Your task to perform on an android device: open a new tab in the chrome app Image 0: 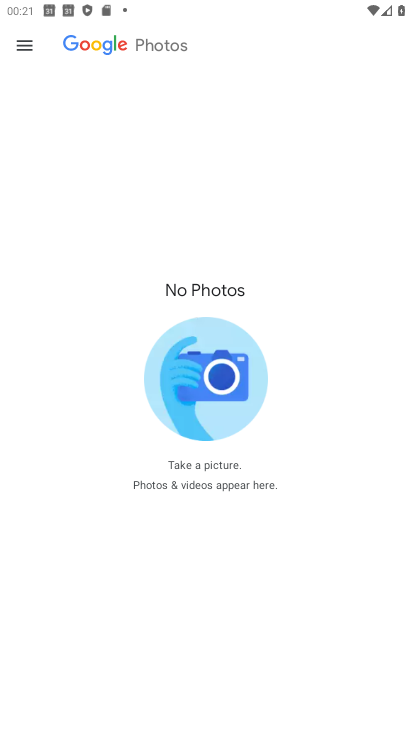
Step 0: press home button
Your task to perform on an android device: open a new tab in the chrome app Image 1: 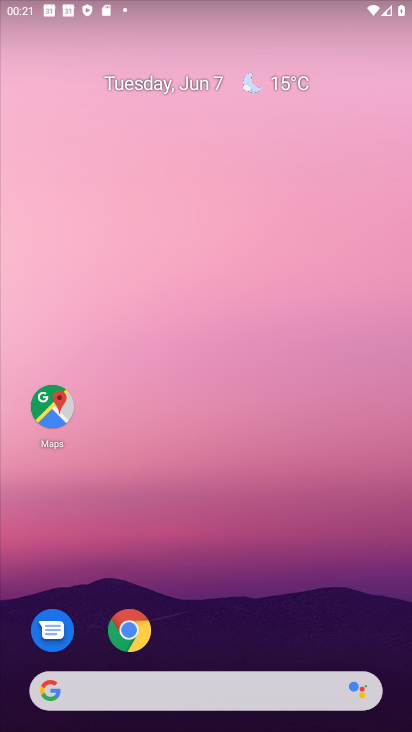
Step 1: drag from (253, 624) to (253, 195)
Your task to perform on an android device: open a new tab in the chrome app Image 2: 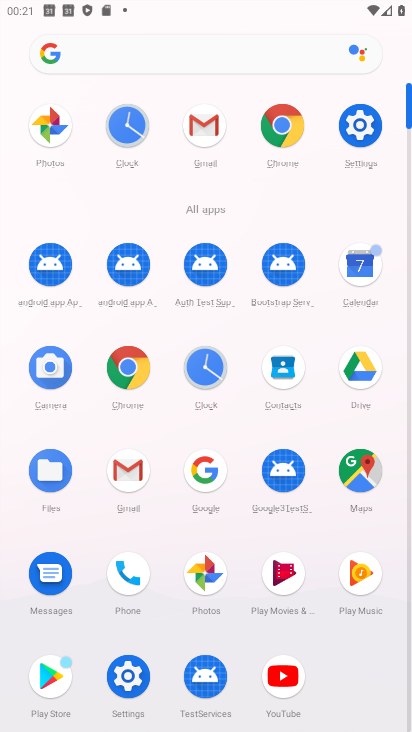
Step 2: click (110, 355)
Your task to perform on an android device: open a new tab in the chrome app Image 3: 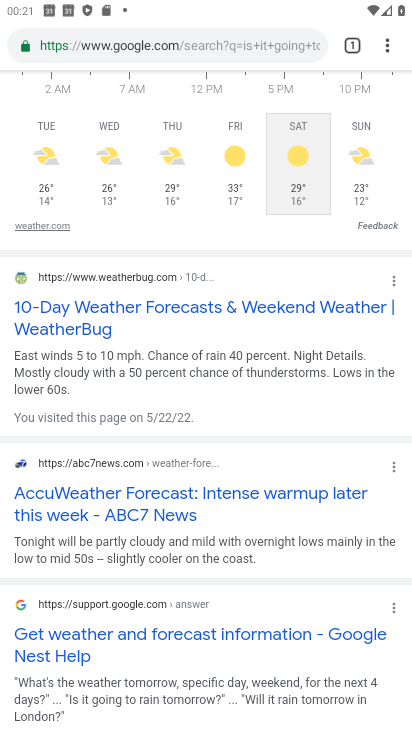
Step 3: click (347, 40)
Your task to perform on an android device: open a new tab in the chrome app Image 4: 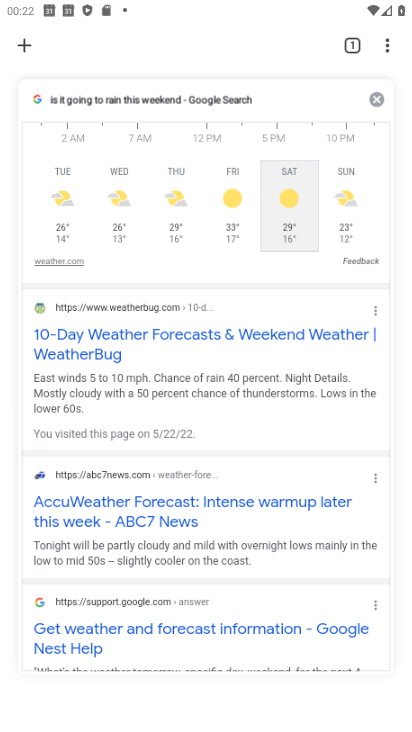
Step 4: click (29, 44)
Your task to perform on an android device: open a new tab in the chrome app Image 5: 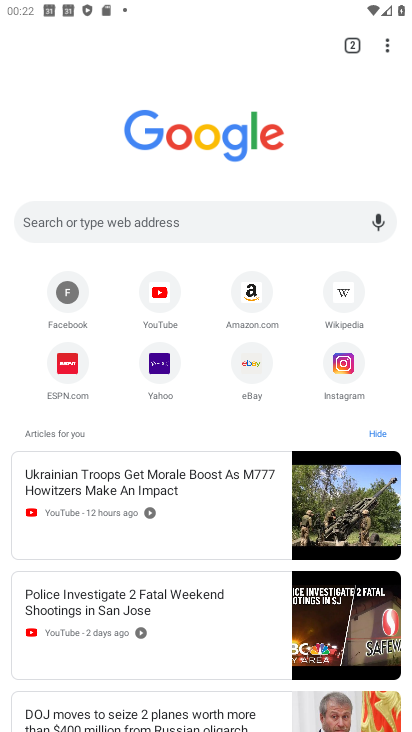
Step 5: task complete